Your task to perform on an android device: Open the map Image 0: 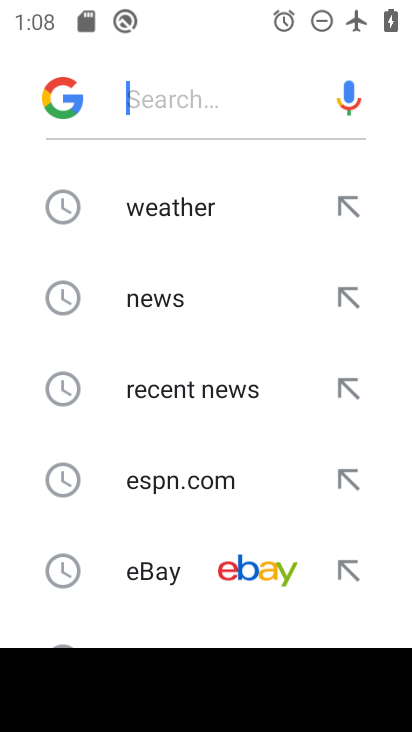
Step 0: press back button
Your task to perform on an android device: Open the map Image 1: 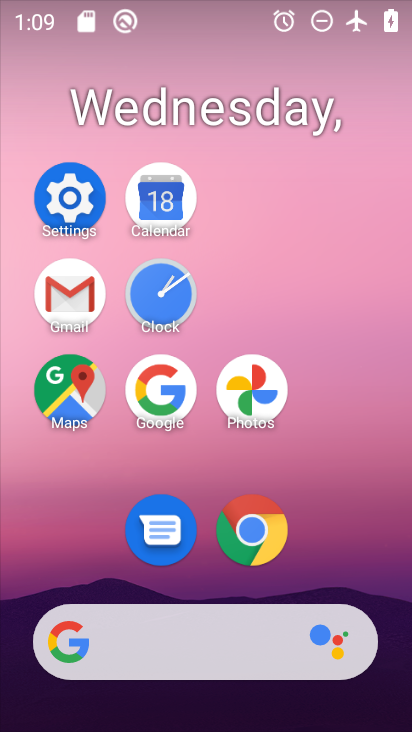
Step 1: click (76, 403)
Your task to perform on an android device: Open the map Image 2: 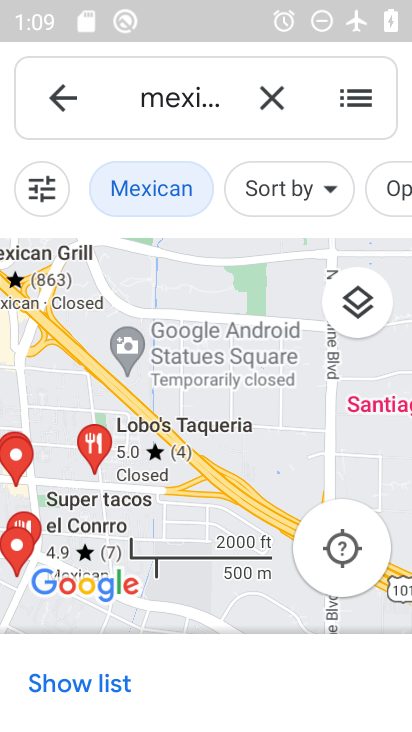
Step 2: task complete